Your task to perform on an android device: Search for pizza restaurants on Maps Image 0: 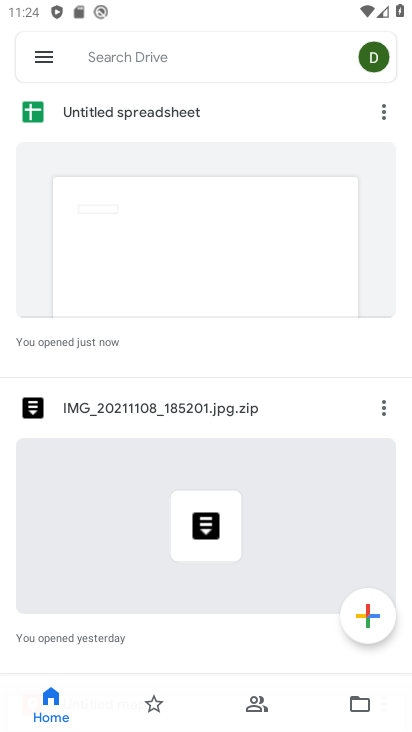
Step 0: press home button
Your task to perform on an android device: Search for pizza restaurants on Maps Image 1: 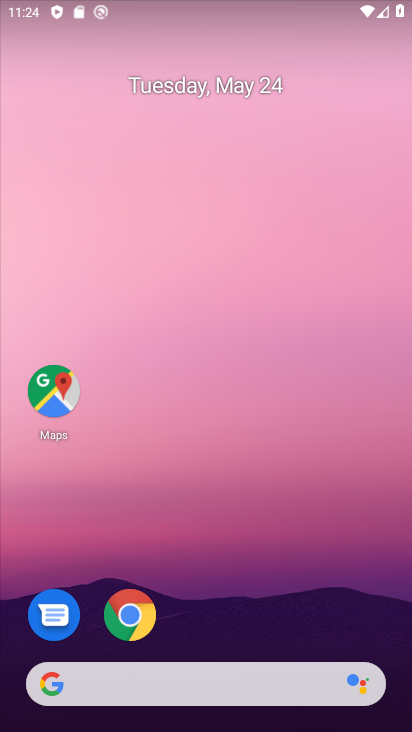
Step 1: click (46, 381)
Your task to perform on an android device: Search for pizza restaurants on Maps Image 2: 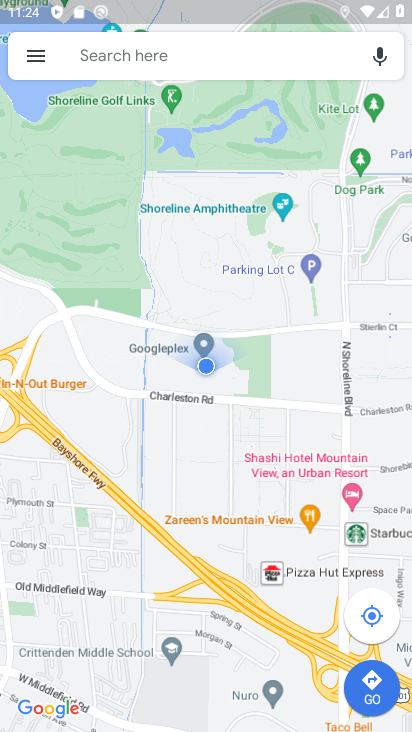
Step 2: click (179, 51)
Your task to perform on an android device: Search for pizza restaurants on Maps Image 3: 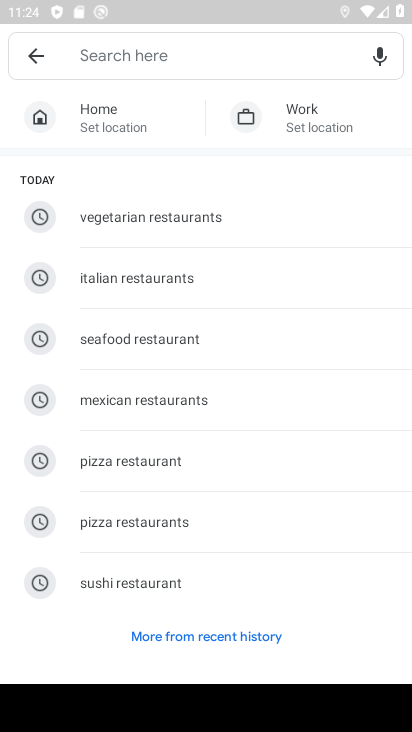
Step 3: click (133, 457)
Your task to perform on an android device: Search for pizza restaurants on Maps Image 4: 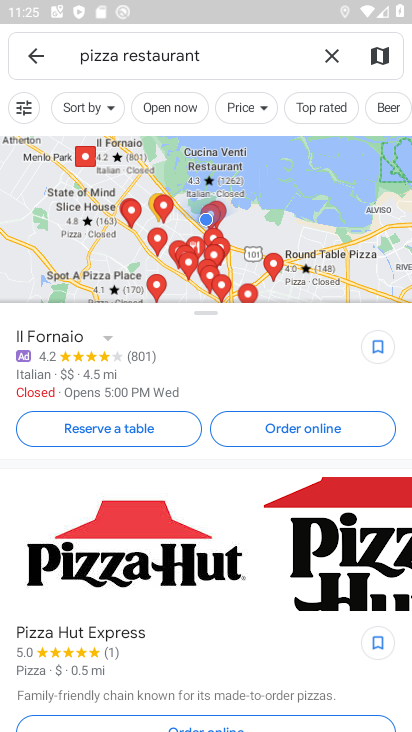
Step 4: task complete